Your task to perform on an android device: Clear the cart on target. Search for rayovac triple a on target, select the first entry, and add it to the cart. Image 0: 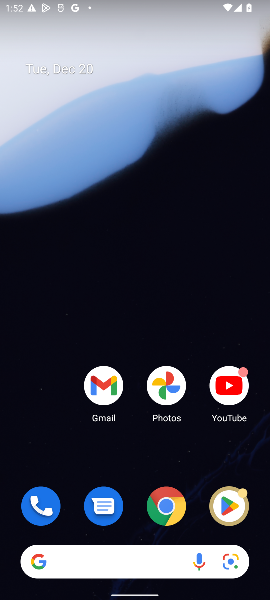
Step 0: click (170, 501)
Your task to perform on an android device: Clear the cart on target. Search for rayovac triple a on target, select the first entry, and add it to the cart. Image 1: 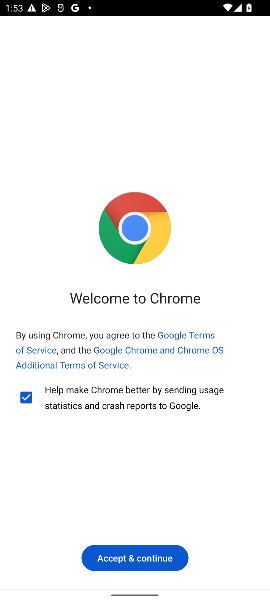
Step 1: click (131, 556)
Your task to perform on an android device: Clear the cart on target. Search for rayovac triple a on target, select the first entry, and add it to the cart. Image 2: 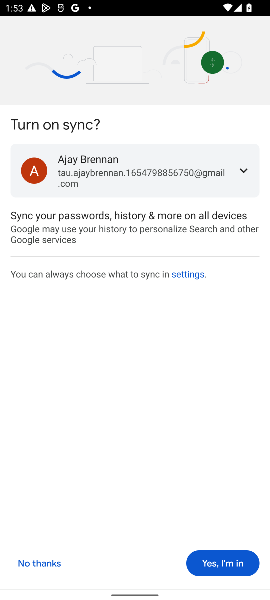
Step 2: click (210, 561)
Your task to perform on an android device: Clear the cart on target. Search for rayovac triple a on target, select the first entry, and add it to the cart. Image 3: 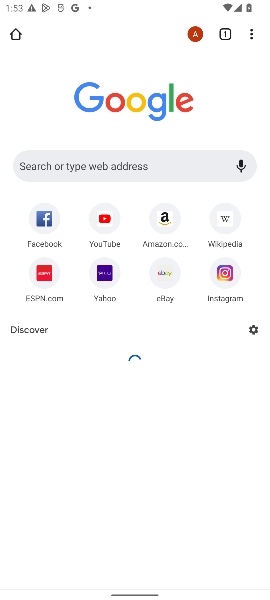
Step 3: click (128, 167)
Your task to perform on an android device: Clear the cart on target. Search for rayovac triple a on target, select the first entry, and add it to the cart. Image 4: 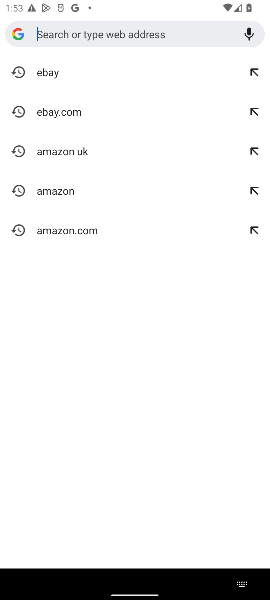
Step 4: type "TARGET"
Your task to perform on an android device: Clear the cart on target. Search for rayovac triple a on target, select the first entry, and add it to the cart. Image 5: 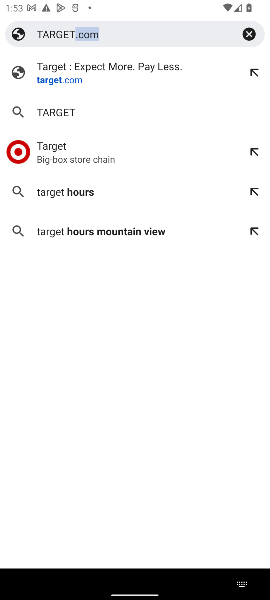
Step 5: click (59, 71)
Your task to perform on an android device: Clear the cart on target. Search for rayovac triple a on target, select the first entry, and add it to the cart. Image 6: 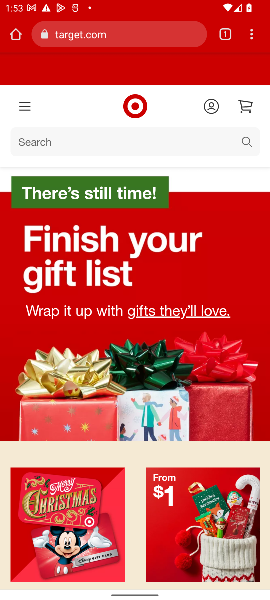
Step 6: click (196, 140)
Your task to perform on an android device: Clear the cart on target. Search for rayovac triple a on target, select the first entry, and add it to the cart. Image 7: 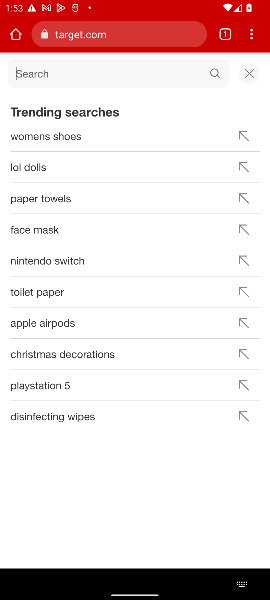
Step 7: type "RAYOVAC TRIPLE A"
Your task to perform on an android device: Clear the cart on target. Search for rayovac triple a on target, select the first entry, and add it to the cart. Image 8: 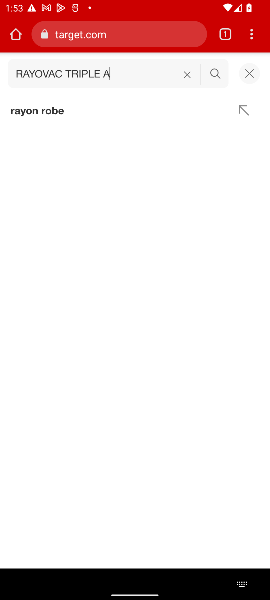
Step 8: click (65, 108)
Your task to perform on an android device: Clear the cart on target. Search for rayovac triple a on target, select the first entry, and add it to the cart. Image 9: 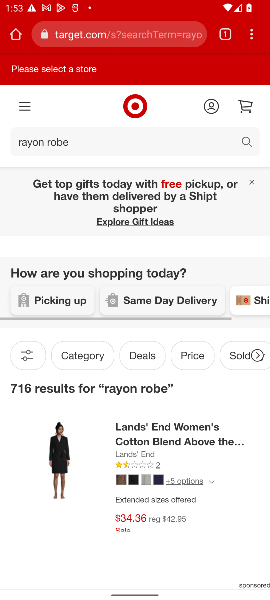
Step 9: click (189, 442)
Your task to perform on an android device: Clear the cart on target. Search for rayovac triple a on target, select the first entry, and add it to the cart. Image 10: 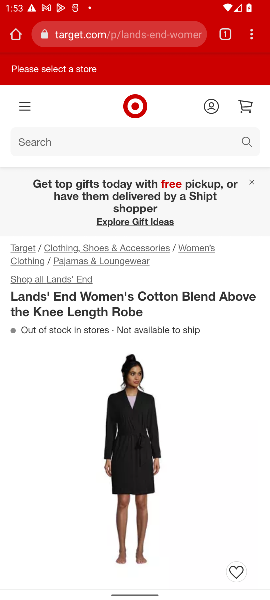
Step 10: drag from (186, 398) to (191, 137)
Your task to perform on an android device: Clear the cart on target. Search for rayovac triple a on target, select the first entry, and add it to the cart. Image 11: 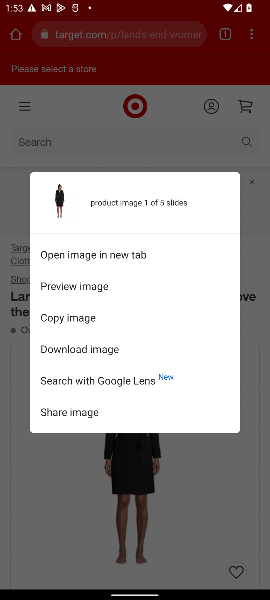
Step 11: click (259, 225)
Your task to perform on an android device: Clear the cart on target. Search for rayovac triple a on target, select the first entry, and add it to the cart. Image 12: 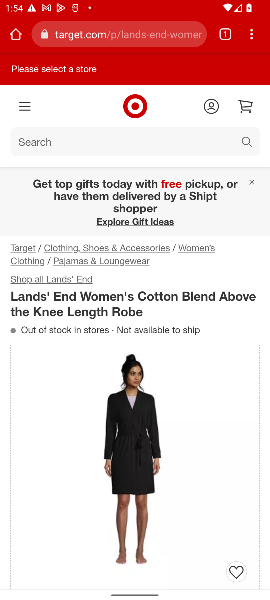
Step 12: drag from (162, 499) to (141, 131)
Your task to perform on an android device: Clear the cart on target. Search for rayovac triple a on target, select the first entry, and add it to the cart. Image 13: 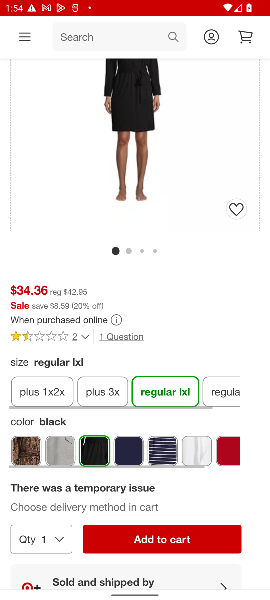
Step 13: click (166, 540)
Your task to perform on an android device: Clear the cart on target. Search for rayovac triple a on target, select the first entry, and add it to the cart. Image 14: 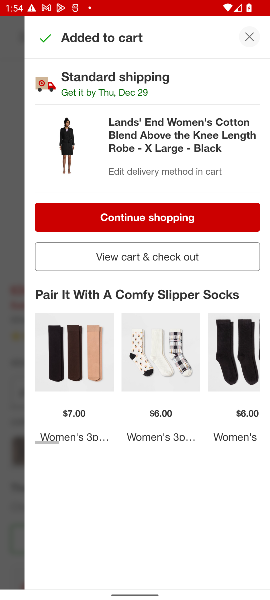
Step 14: task complete